Your task to perform on an android device: turn on wifi Image 0: 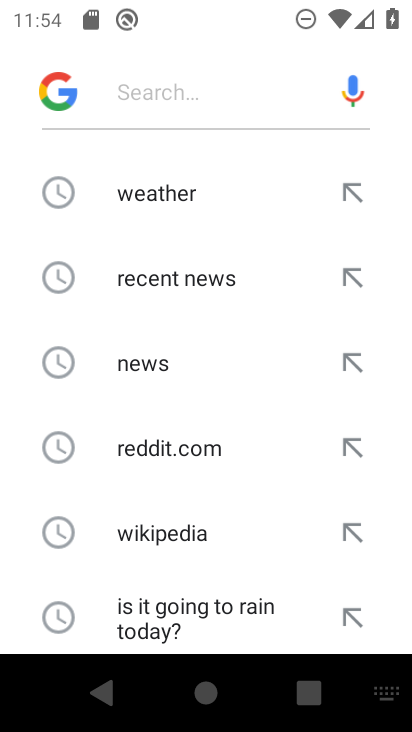
Step 0: press home button
Your task to perform on an android device: turn on wifi Image 1: 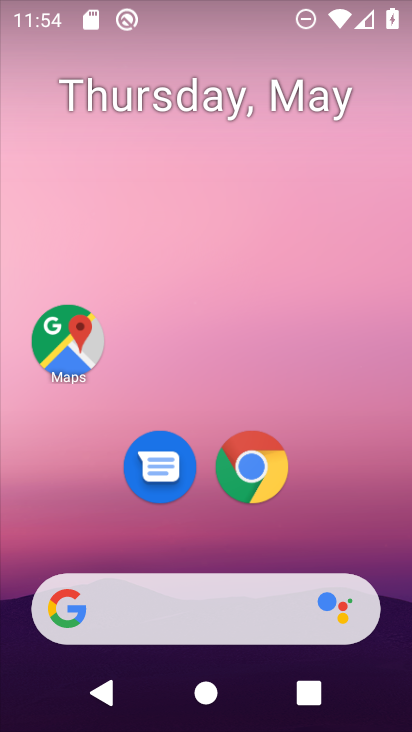
Step 1: drag from (267, 540) to (343, 107)
Your task to perform on an android device: turn on wifi Image 2: 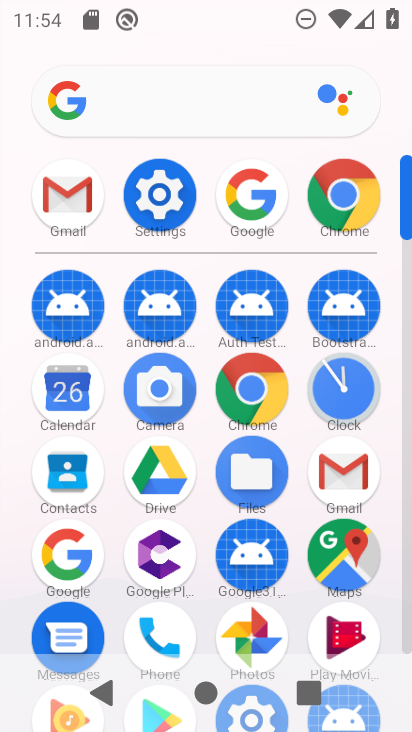
Step 2: click (156, 205)
Your task to perform on an android device: turn on wifi Image 3: 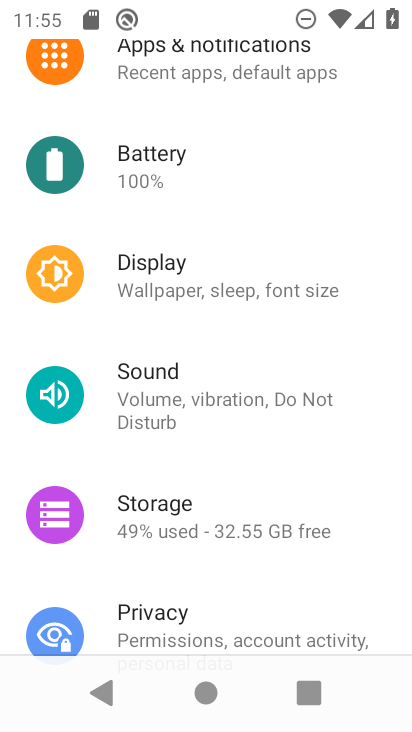
Step 3: drag from (259, 138) to (256, 656)
Your task to perform on an android device: turn on wifi Image 4: 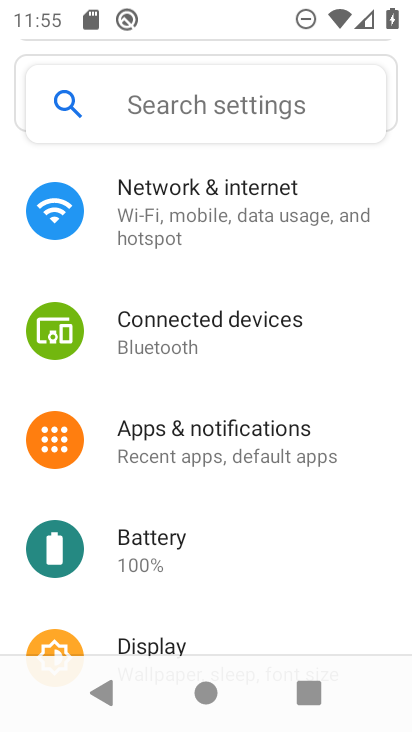
Step 4: click (274, 193)
Your task to perform on an android device: turn on wifi Image 5: 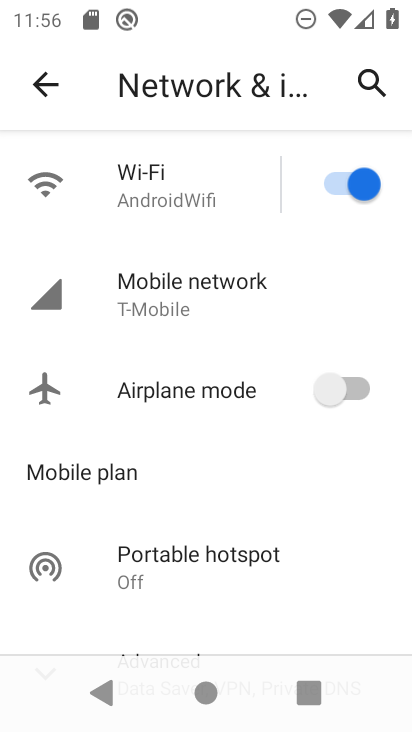
Step 5: task complete